Your task to perform on an android device: Open maps Image 0: 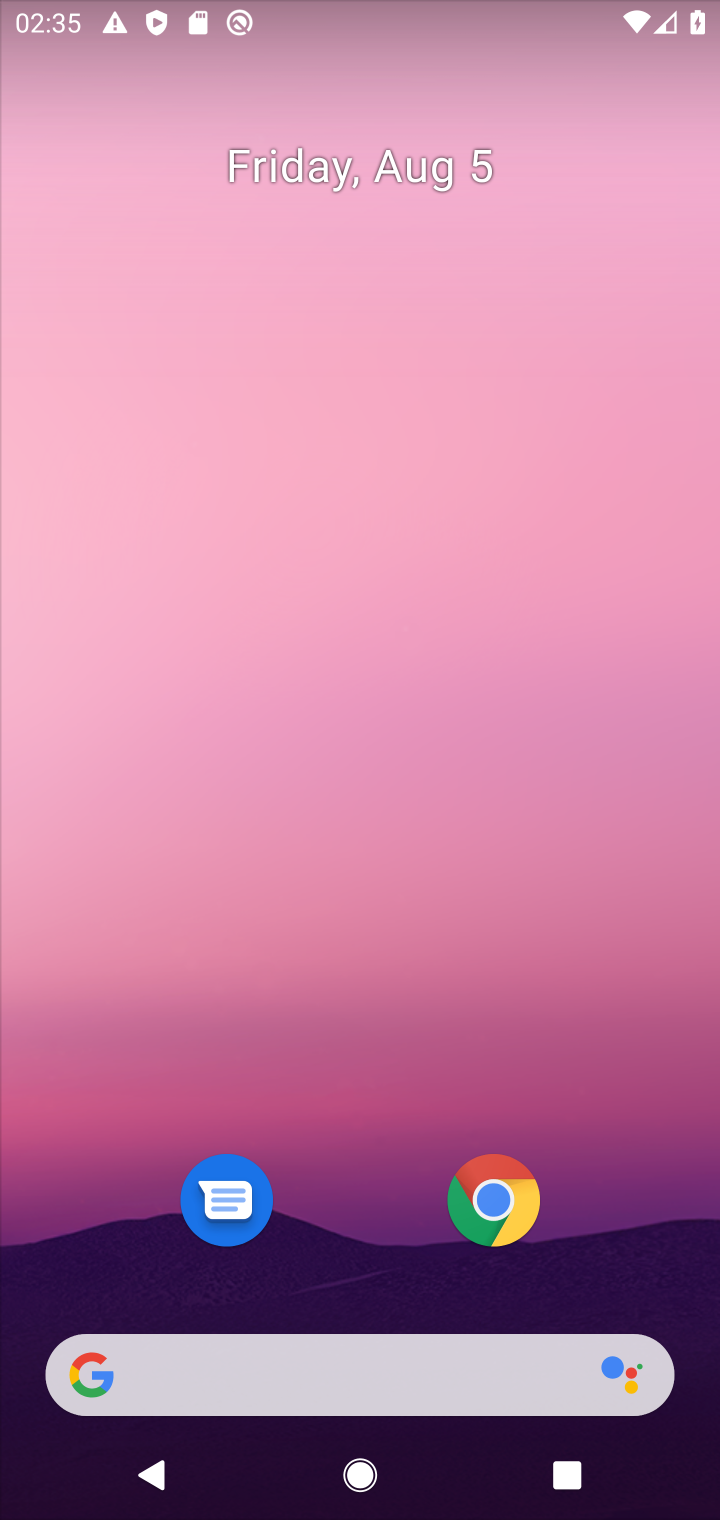
Step 0: drag from (272, 634) to (250, 450)
Your task to perform on an android device: Open maps Image 1: 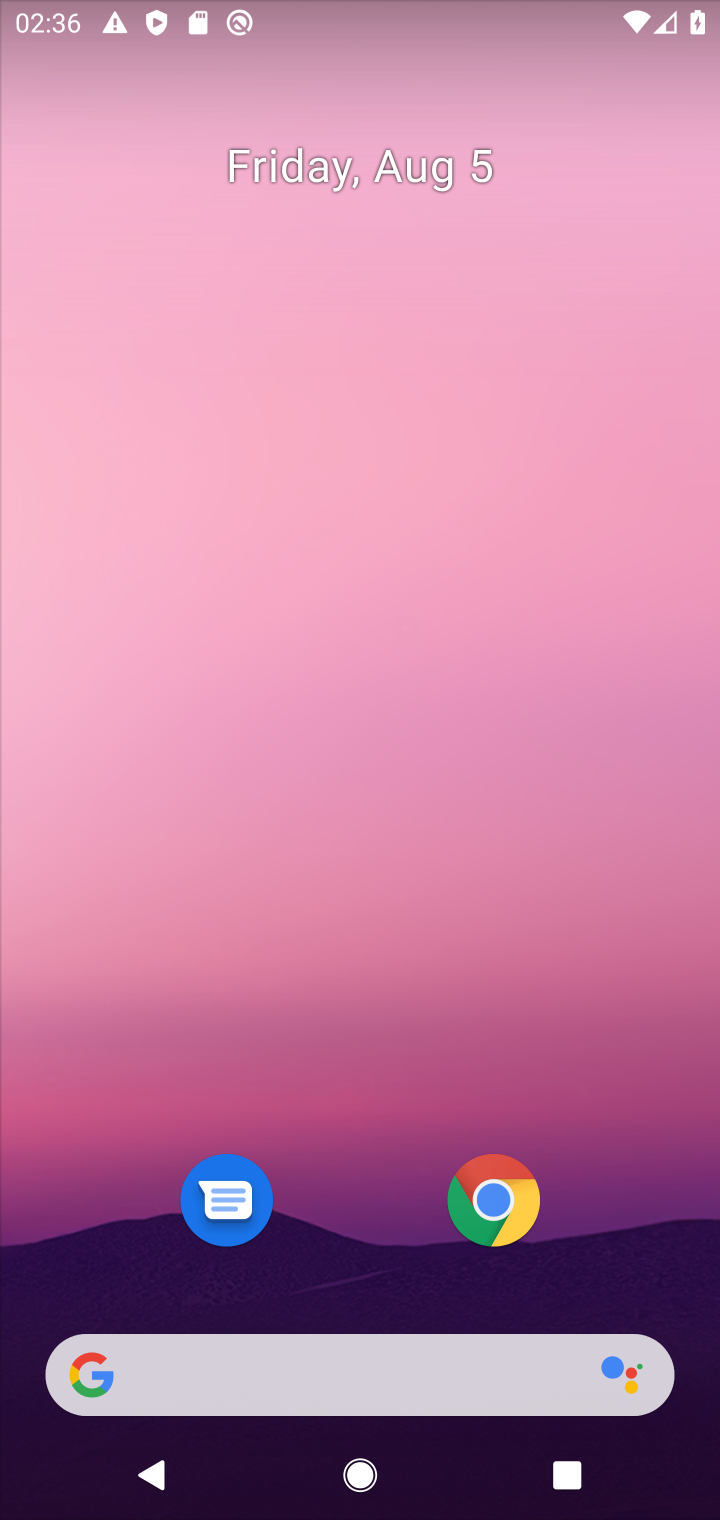
Step 1: drag from (354, 871) to (354, 240)
Your task to perform on an android device: Open maps Image 2: 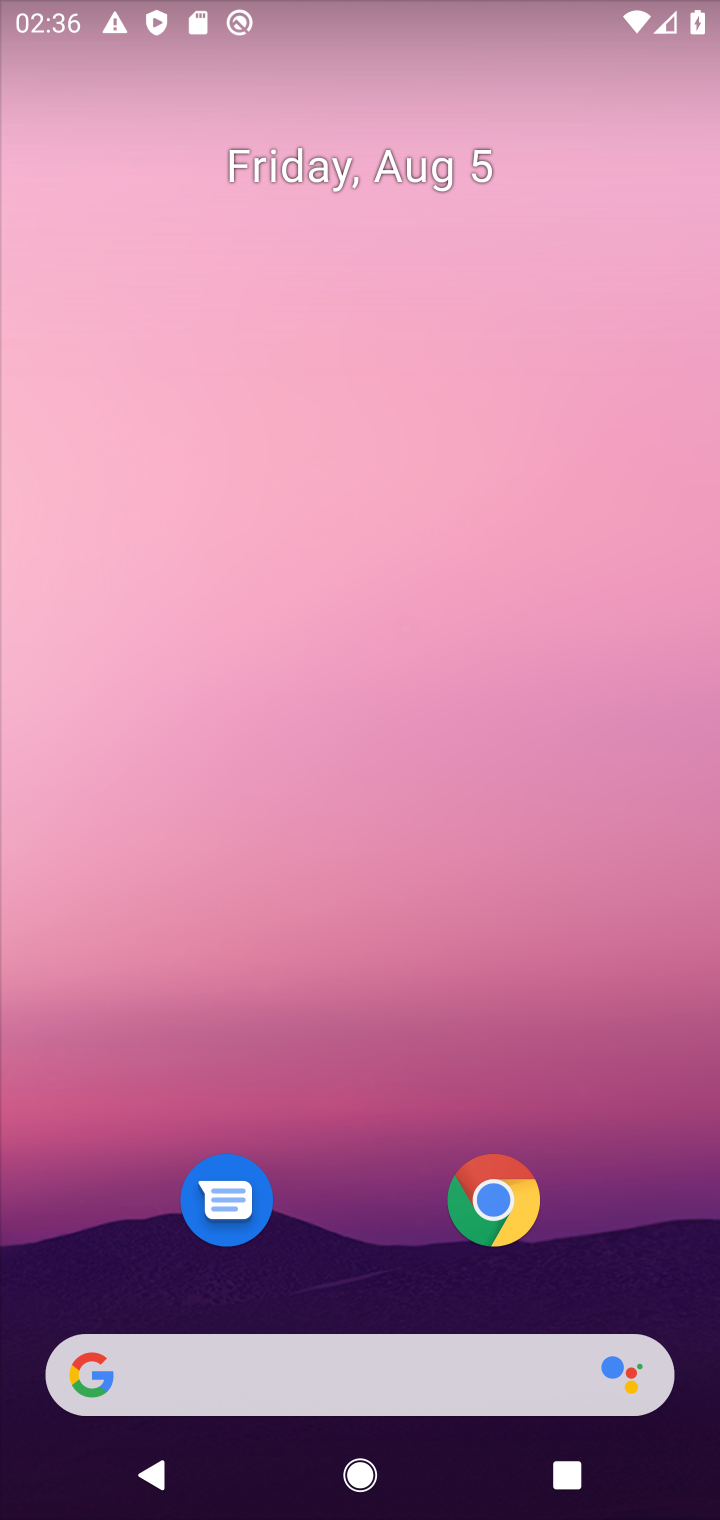
Step 2: drag from (347, 1134) to (434, 106)
Your task to perform on an android device: Open maps Image 3: 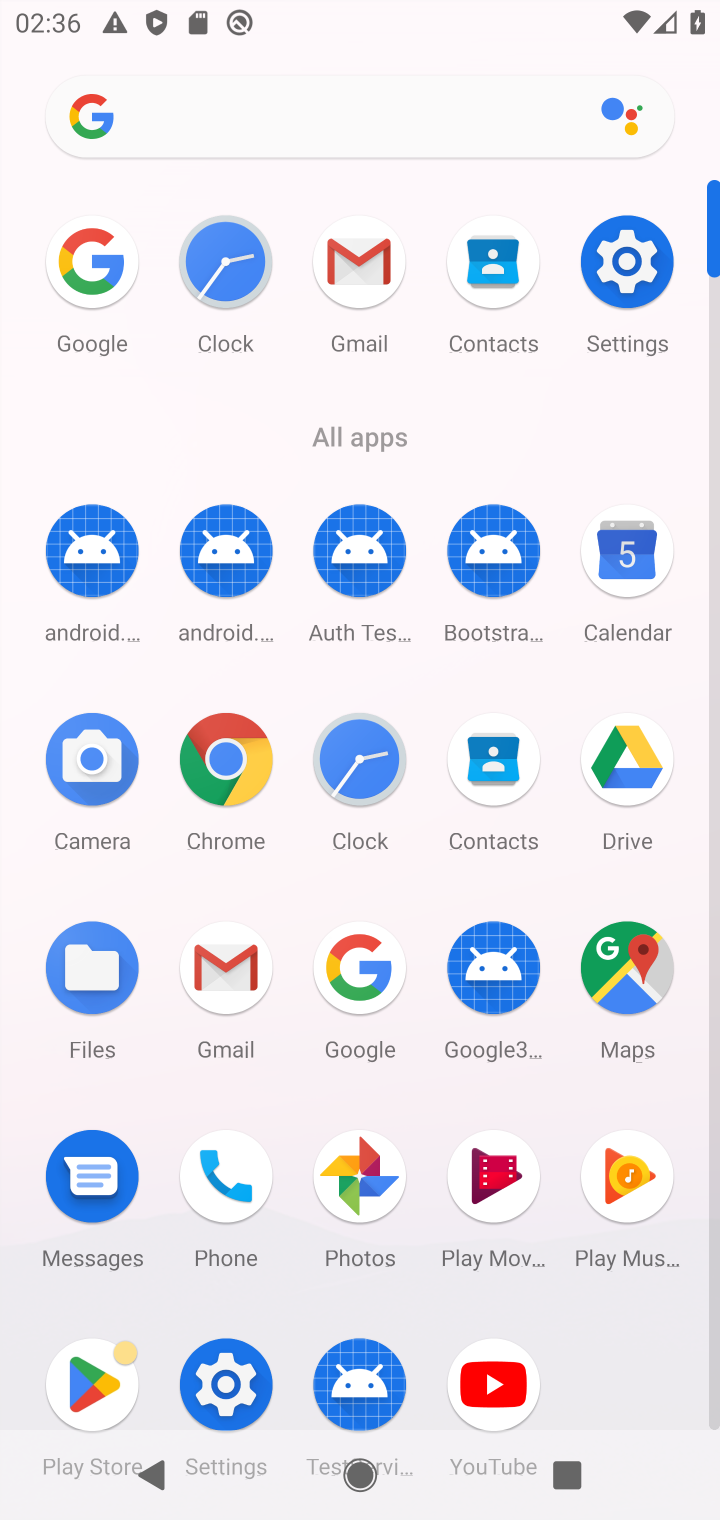
Step 3: click (598, 1003)
Your task to perform on an android device: Open maps Image 4: 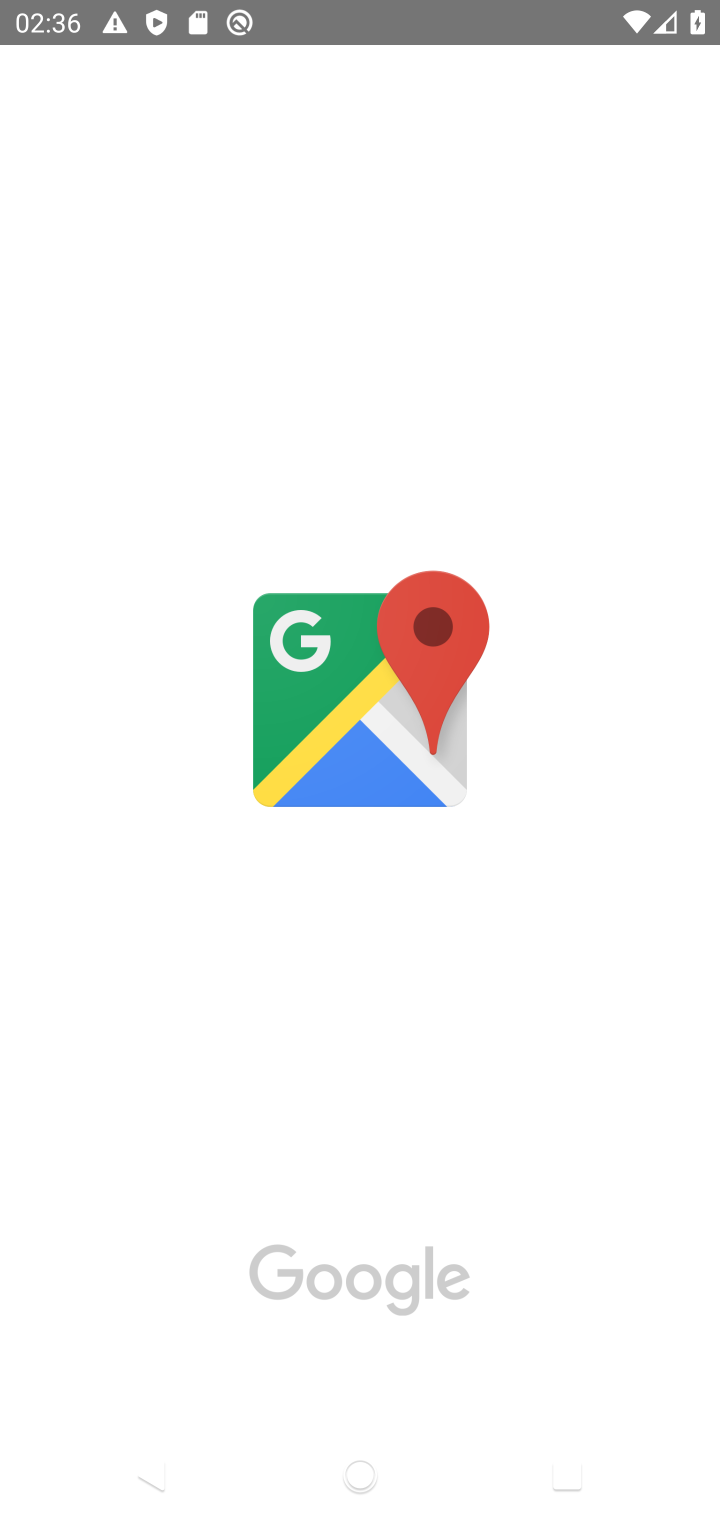
Step 4: click (656, 1001)
Your task to perform on an android device: Open maps Image 5: 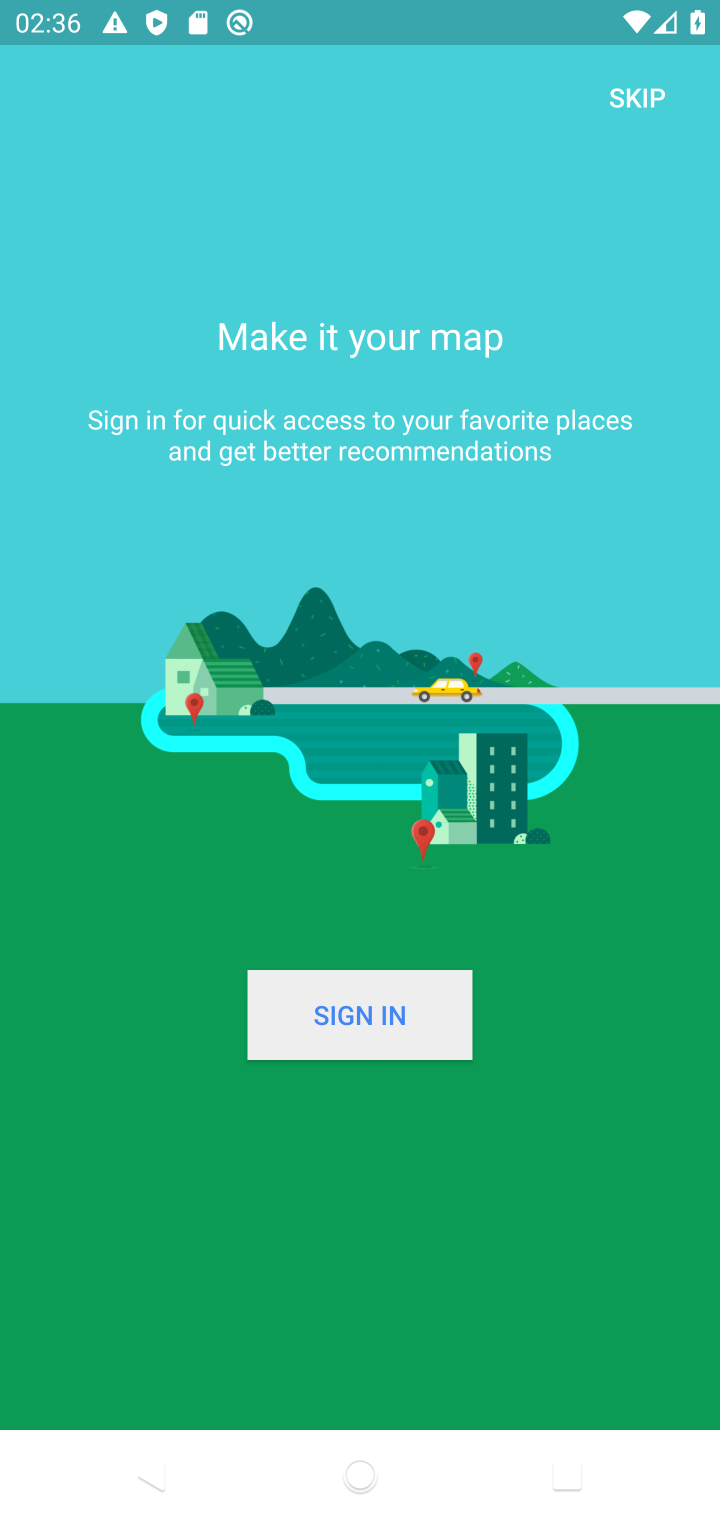
Step 5: task complete